Your task to perform on an android device: When is my next appointment? Image 0: 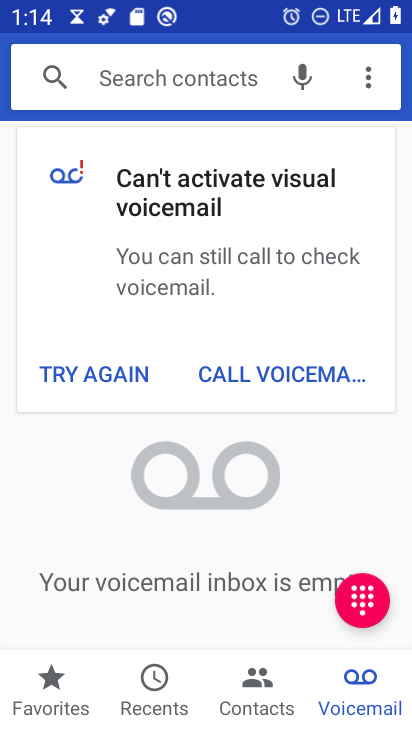
Step 0: press home button
Your task to perform on an android device: When is my next appointment? Image 1: 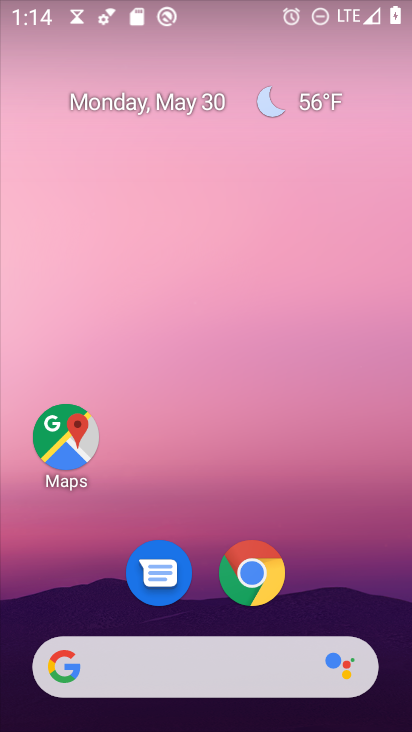
Step 1: drag from (285, 634) to (279, 13)
Your task to perform on an android device: When is my next appointment? Image 2: 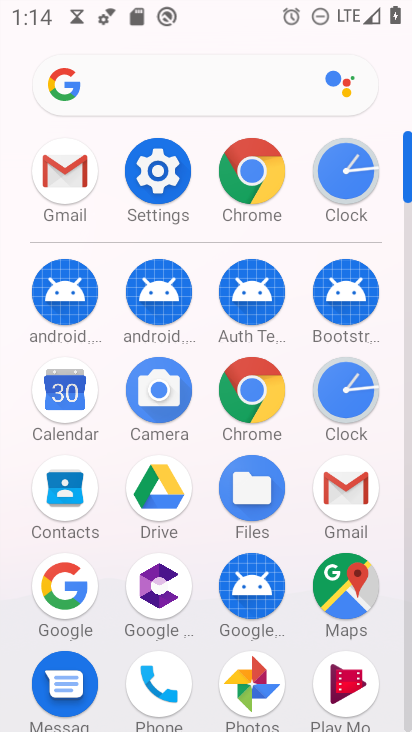
Step 2: click (59, 418)
Your task to perform on an android device: When is my next appointment? Image 3: 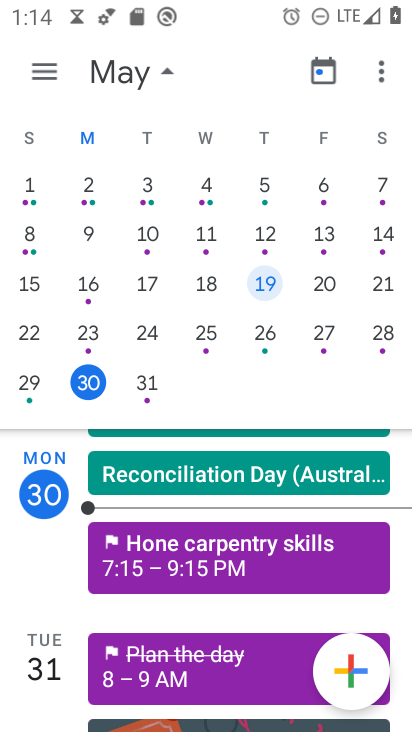
Step 3: click (88, 378)
Your task to perform on an android device: When is my next appointment? Image 4: 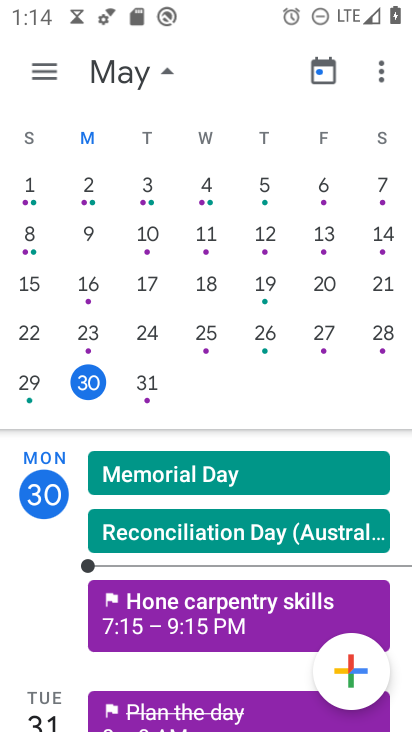
Step 4: task complete